Your task to perform on an android device: Open settings Image 0: 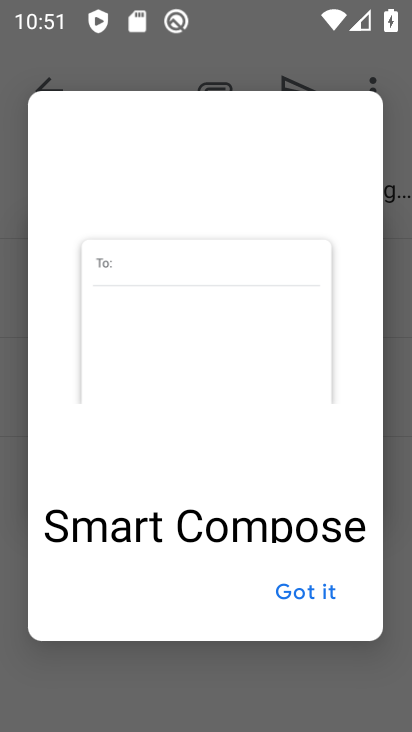
Step 0: press home button
Your task to perform on an android device: Open settings Image 1: 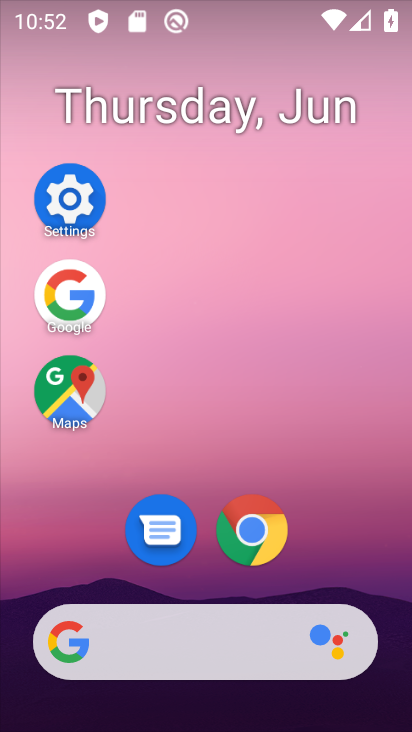
Step 1: click (104, 195)
Your task to perform on an android device: Open settings Image 2: 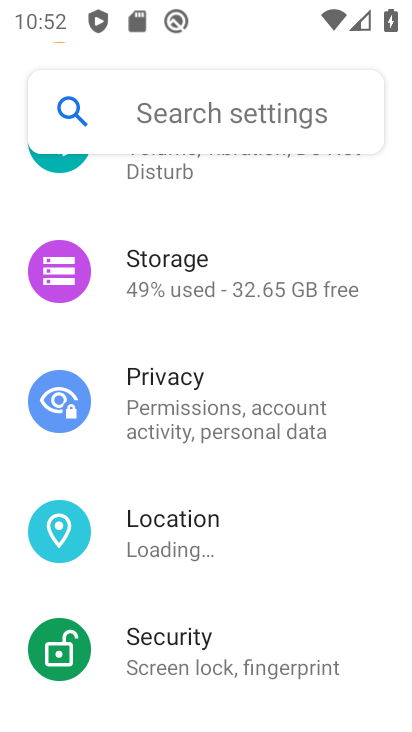
Step 2: task complete